Your task to perform on an android device: Go to Maps Image 0: 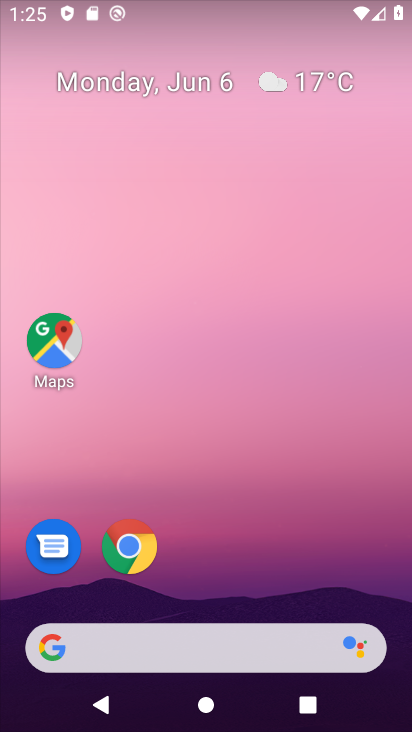
Step 0: click (44, 335)
Your task to perform on an android device: Go to Maps Image 1: 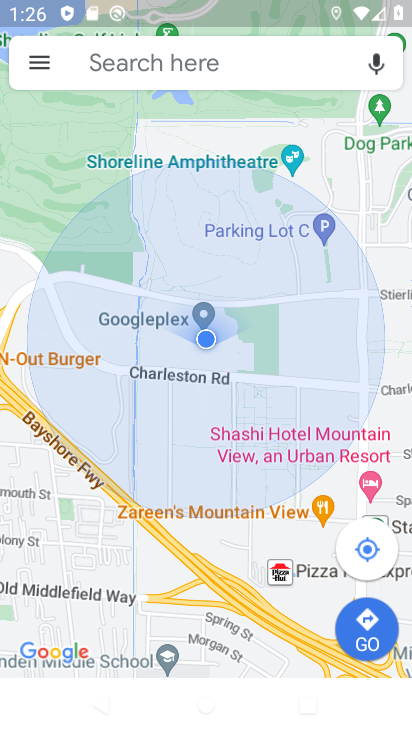
Step 1: task complete